Your task to perform on an android device: Open Amazon Image 0: 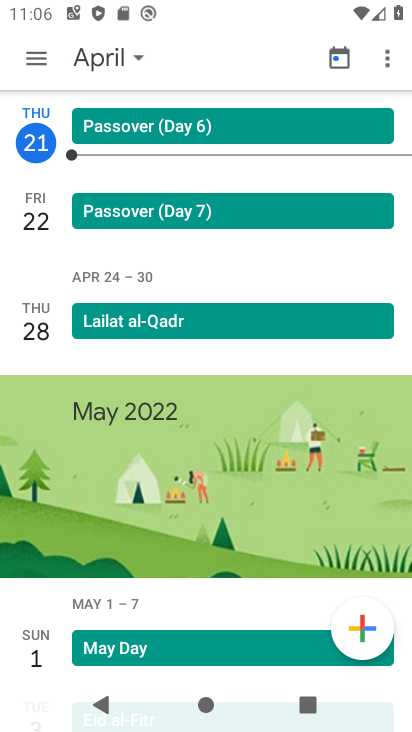
Step 0: press home button
Your task to perform on an android device: Open Amazon Image 1: 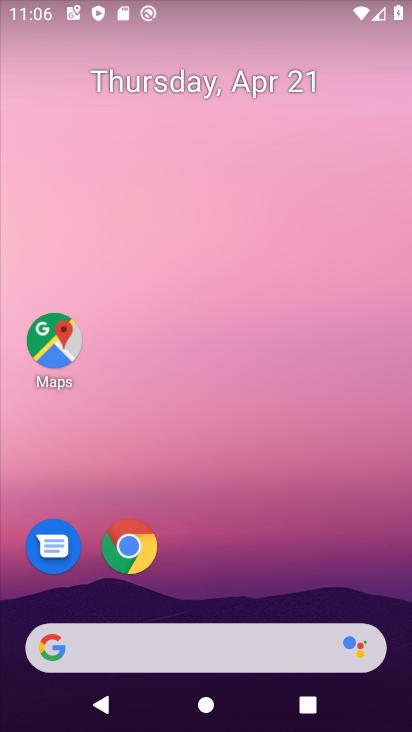
Step 1: click (130, 549)
Your task to perform on an android device: Open Amazon Image 2: 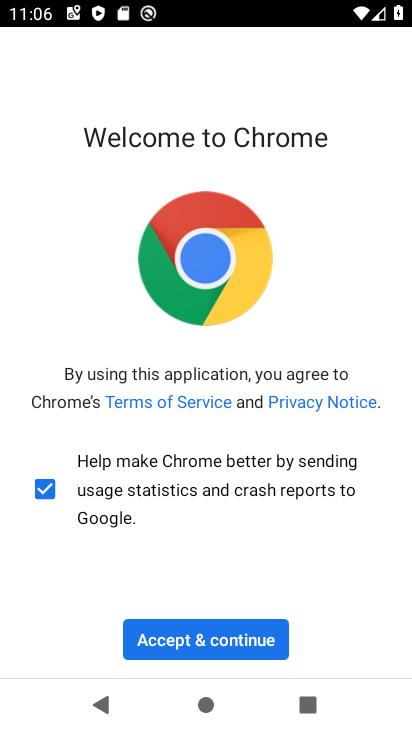
Step 2: click (193, 639)
Your task to perform on an android device: Open Amazon Image 3: 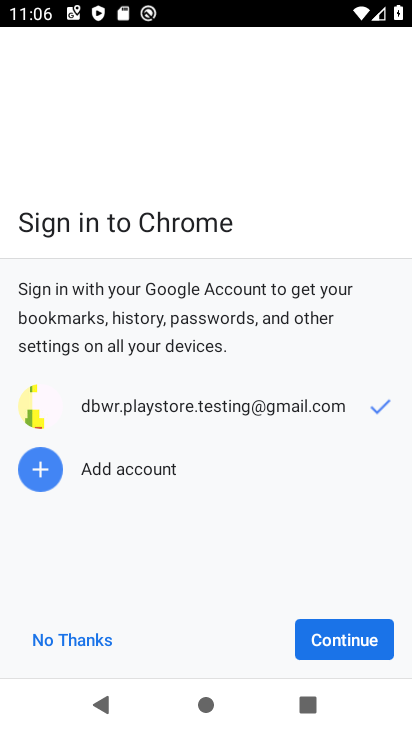
Step 3: click (329, 647)
Your task to perform on an android device: Open Amazon Image 4: 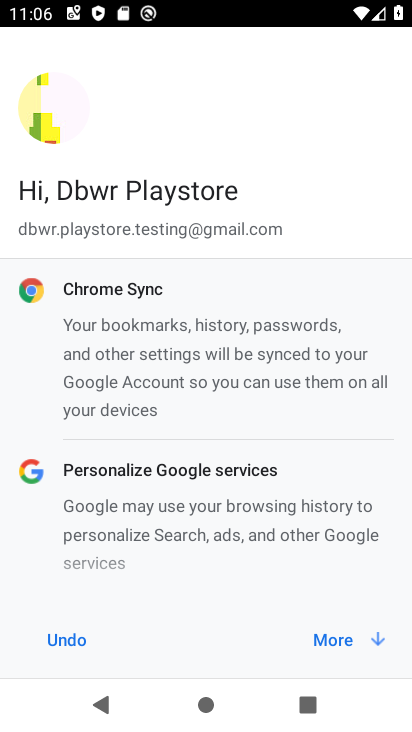
Step 4: click (329, 642)
Your task to perform on an android device: Open Amazon Image 5: 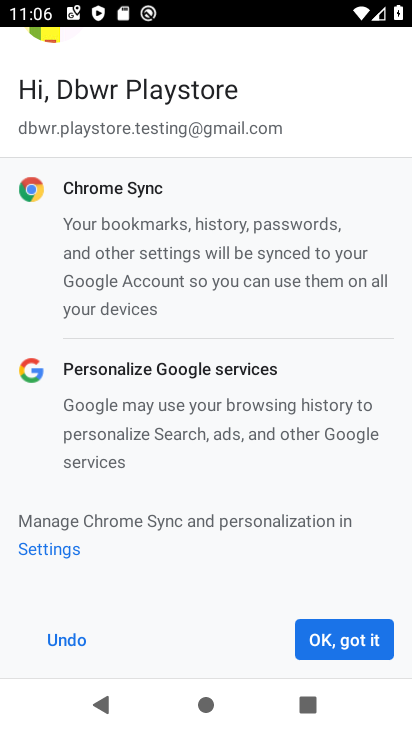
Step 5: click (329, 642)
Your task to perform on an android device: Open Amazon Image 6: 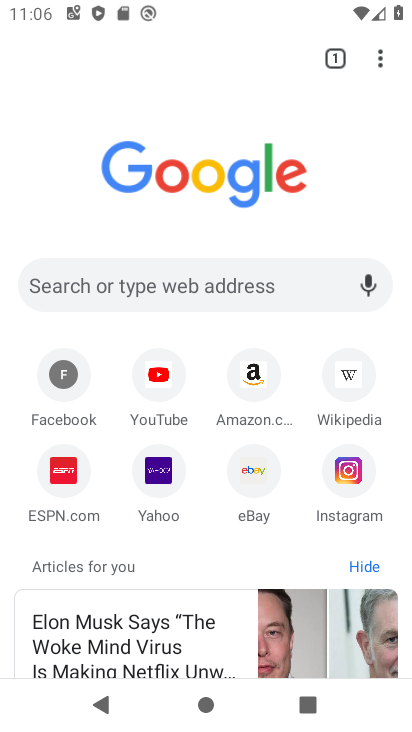
Step 6: click (253, 376)
Your task to perform on an android device: Open Amazon Image 7: 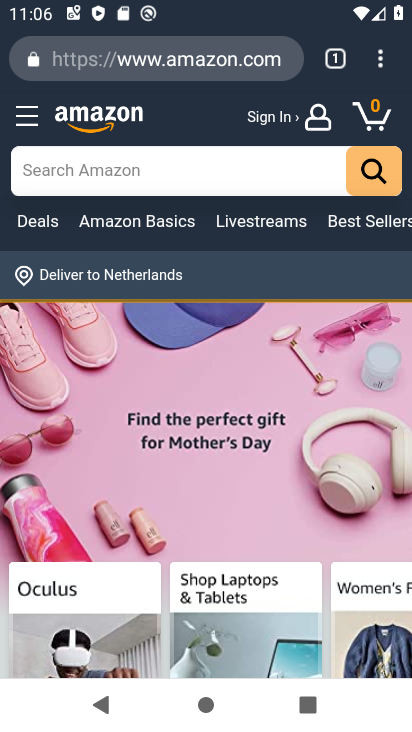
Step 7: task complete